Your task to perform on an android device: Search for "logitech g502" on ebay.com, select the first entry, add it to the cart, then select checkout. Image 0: 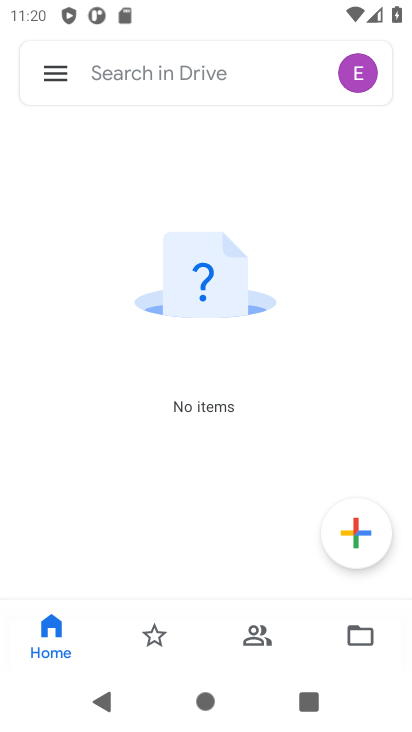
Step 0: press home button
Your task to perform on an android device: Search for "logitech g502" on ebay.com, select the first entry, add it to the cart, then select checkout. Image 1: 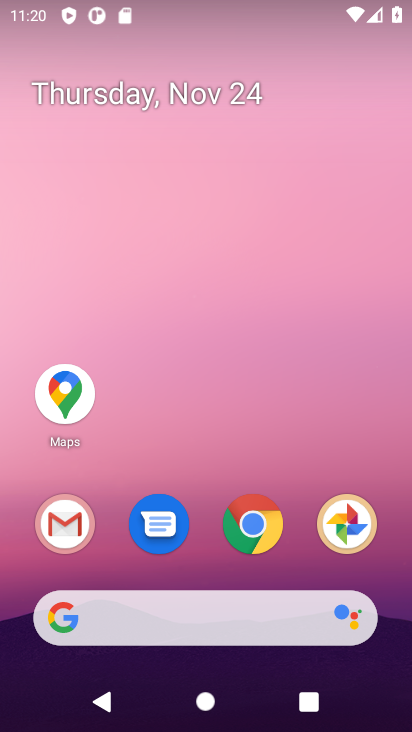
Step 1: click (255, 532)
Your task to perform on an android device: Search for "logitech g502" on ebay.com, select the first entry, add it to the cart, then select checkout. Image 2: 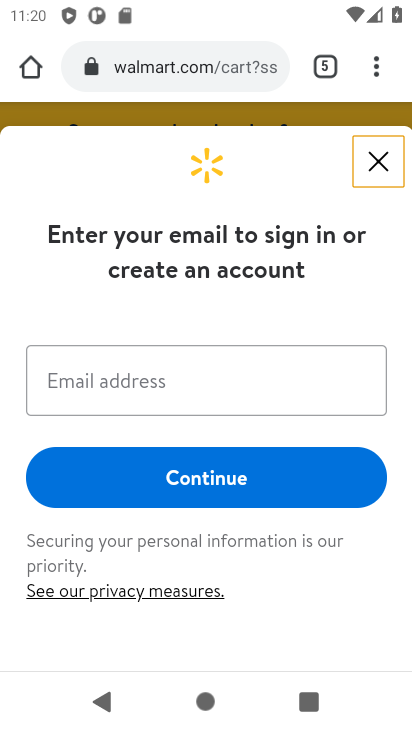
Step 2: click (164, 68)
Your task to perform on an android device: Search for "logitech g502" on ebay.com, select the first entry, add it to the cart, then select checkout. Image 3: 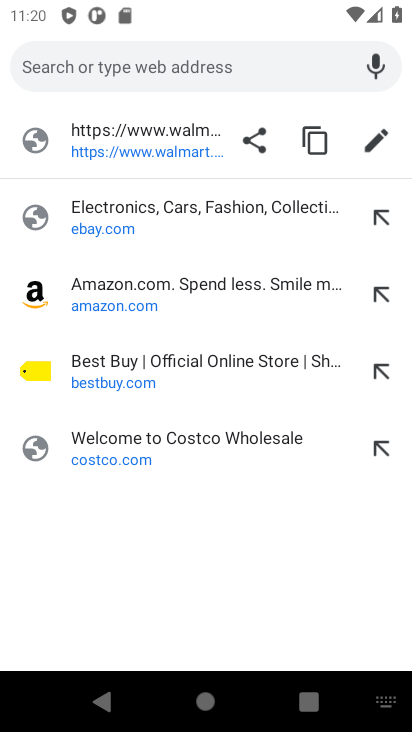
Step 3: click (105, 232)
Your task to perform on an android device: Search for "logitech g502" on ebay.com, select the first entry, add it to the cart, then select checkout. Image 4: 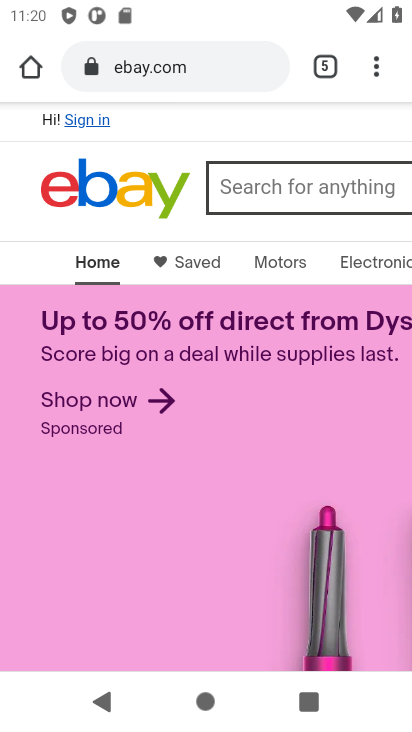
Step 4: click (291, 190)
Your task to perform on an android device: Search for "logitech g502" on ebay.com, select the first entry, add it to the cart, then select checkout. Image 5: 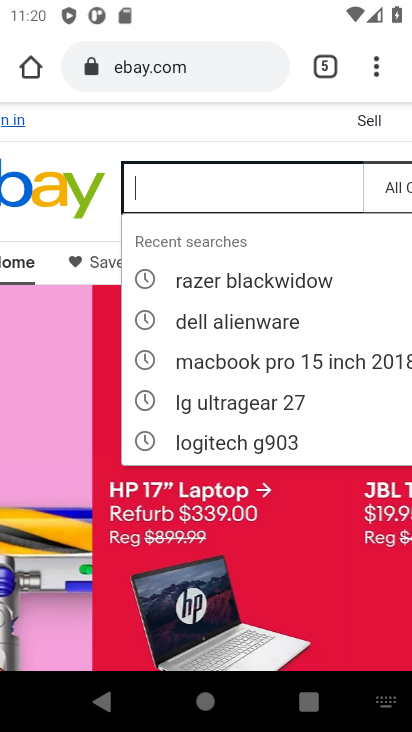
Step 5: type "logitech g502"
Your task to perform on an android device: Search for "logitech g502" on ebay.com, select the first entry, add it to the cart, then select checkout. Image 6: 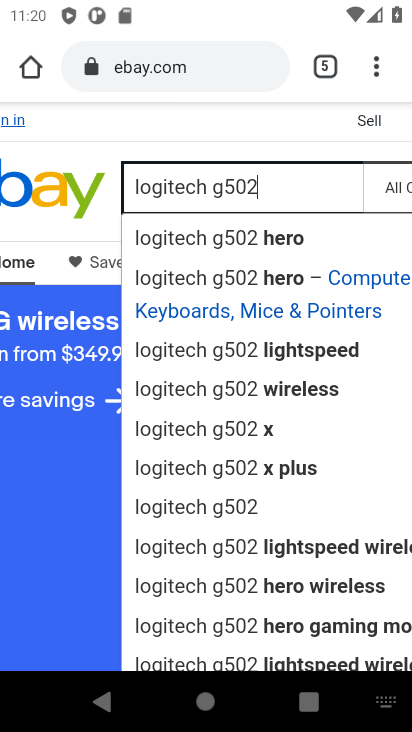
Step 6: click (228, 246)
Your task to perform on an android device: Search for "logitech g502" on ebay.com, select the first entry, add it to the cart, then select checkout. Image 7: 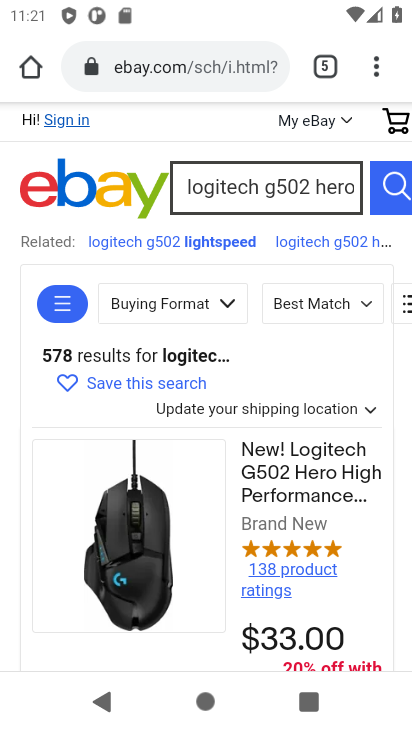
Step 7: drag from (157, 562) to (138, 287)
Your task to perform on an android device: Search for "logitech g502" on ebay.com, select the first entry, add it to the cart, then select checkout. Image 8: 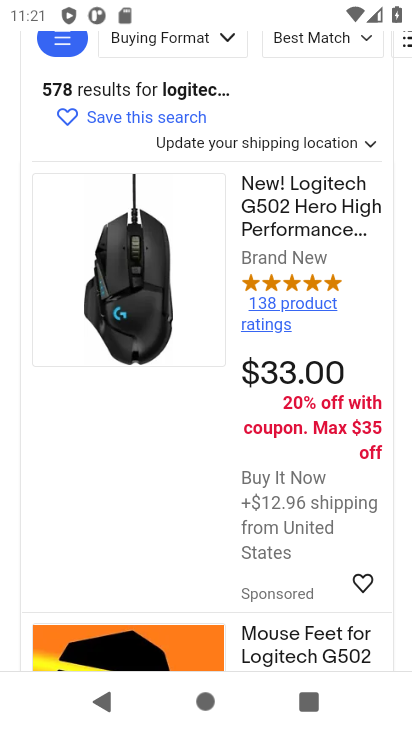
Step 8: click (119, 300)
Your task to perform on an android device: Search for "logitech g502" on ebay.com, select the first entry, add it to the cart, then select checkout. Image 9: 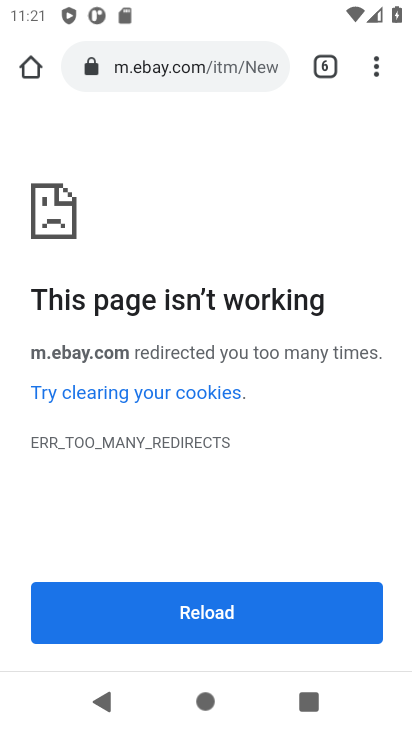
Step 9: task complete